Your task to perform on an android device: turn off sleep mode Image 0: 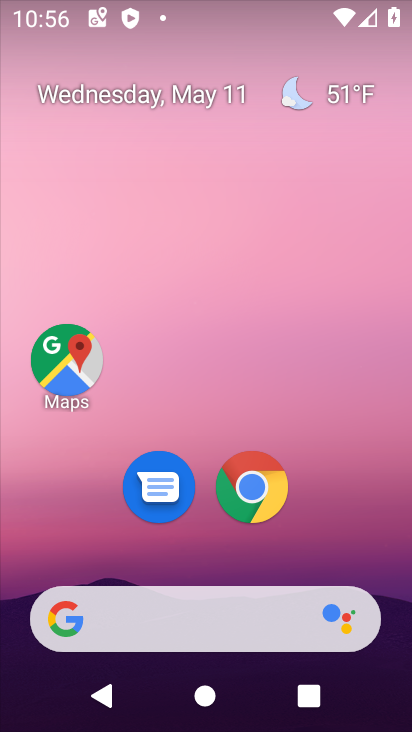
Step 0: drag from (375, 537) to (310, 183)
Your task to perform on an android device: turn off sleep mode Image 1: 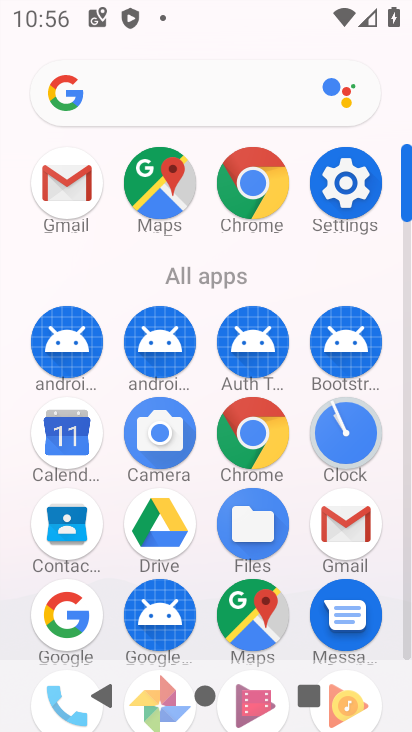
Step 1: click (355, 177)
Your task to perform on an android device: turn off sleep mode Image 2: 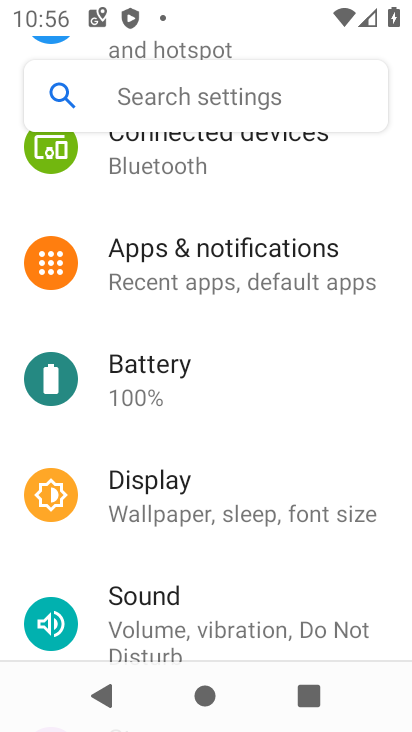
Step 2: drag from (344, 573) to (305, 489)
Your task to perform on an android device: turn off sleep mode Image 3: 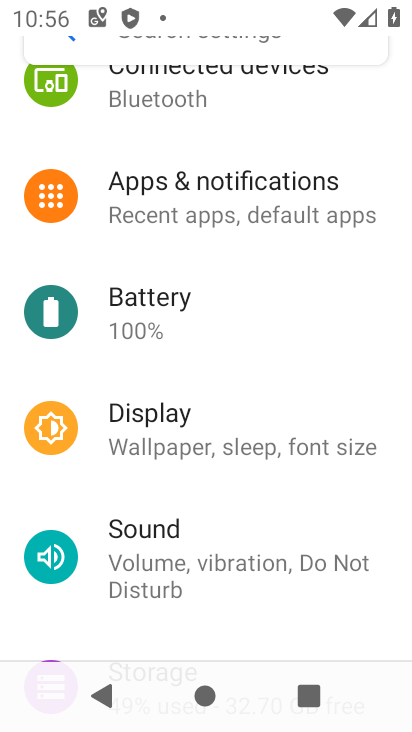
Step 3: click (181, 441)
Your task to perform on an android device: turn off sleep mode Image 4: 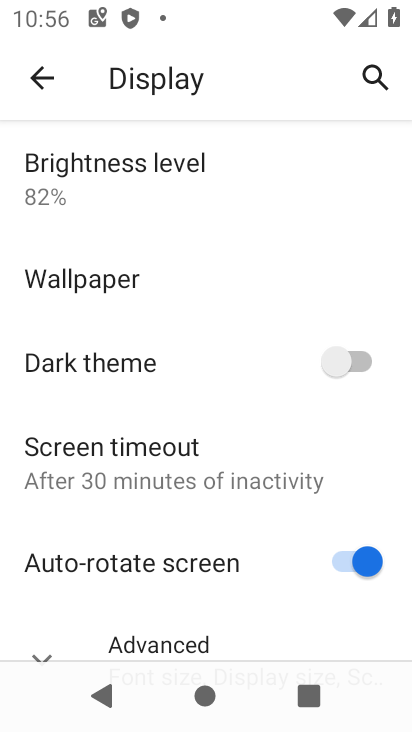
Step 4: drag from (214, 449) to (170, 287)
Your task to perform on an android device: turn off sleep mode Image 5: 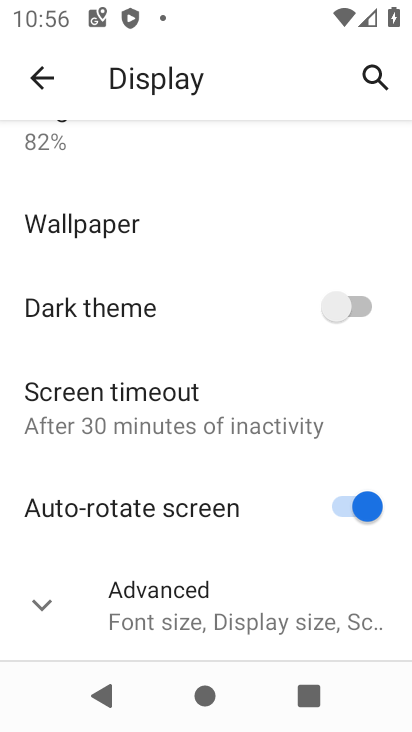
Step 5: click (221, 589)
Your task to perform on an android device: turn off sleep mode Image 6: 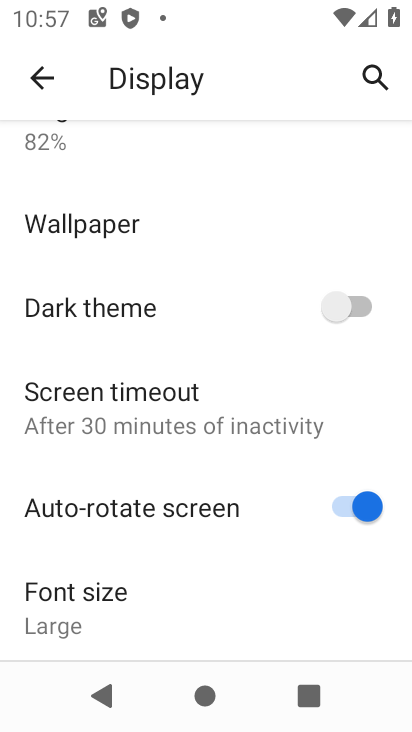
Step 6: task complete